Your task to perform on an android device: Open internet settings Image 0: 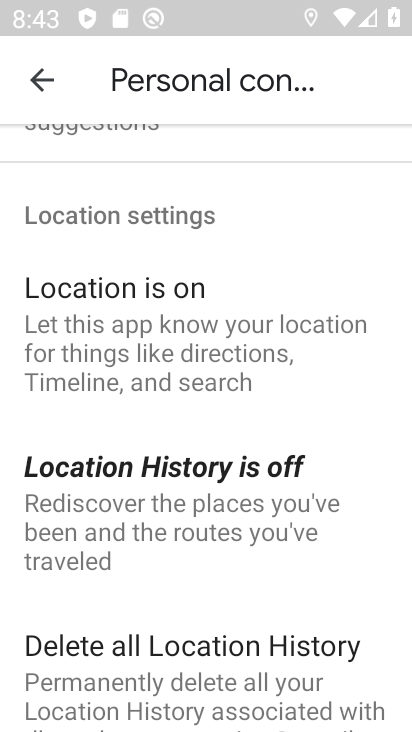
Step 0: press home button
Your task to perform on an android device: Open internet settings Image 1: 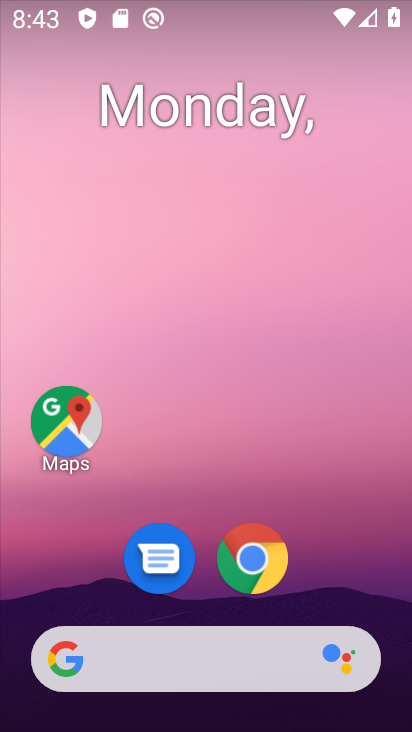
Step 1: drag from (315, 443) to (274, 14)
Your task to perform on an android device: Open internet settings Image 2: 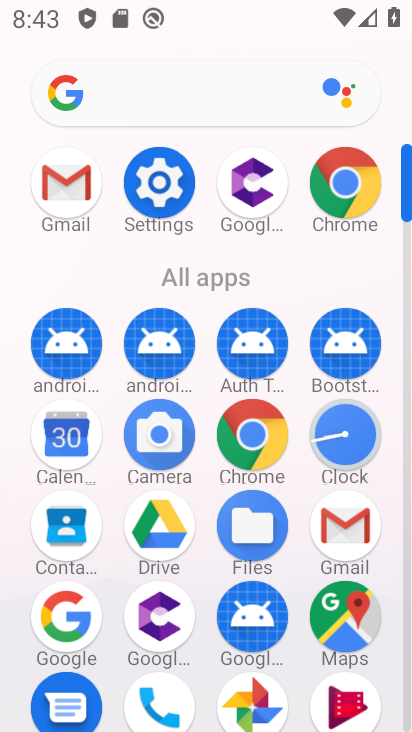
Step 2: click (170, 187)
Your task to perform on an android device: Open internet settings Image 3: 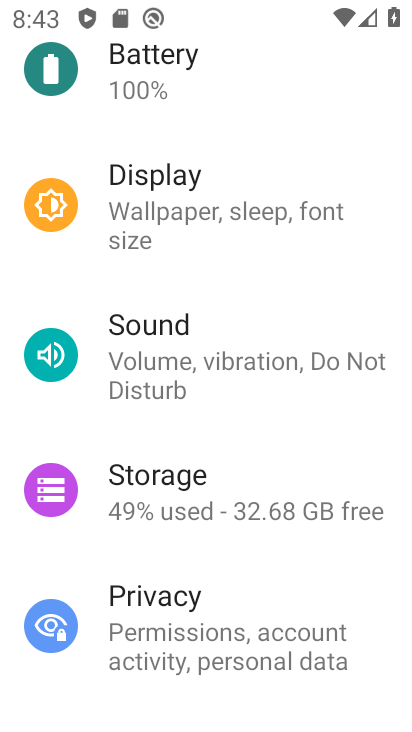
Step 3: drag from (252, 124) to (182, 620)
Your task to perform on an android device: Open internet settings Image 4: 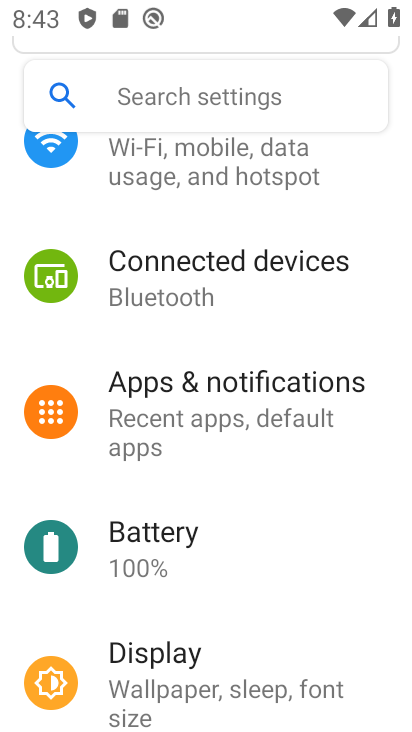
Step 4: drag from (217, 213) to (193, 474)
Your task to perform on an android device: Open internet settings Image 5: 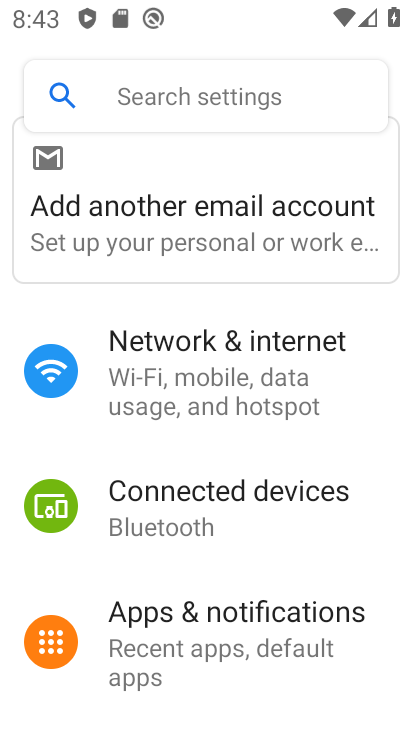
Step 5: click (199, 350)
Your task to perform on an android device: Open internet settings Image 6: 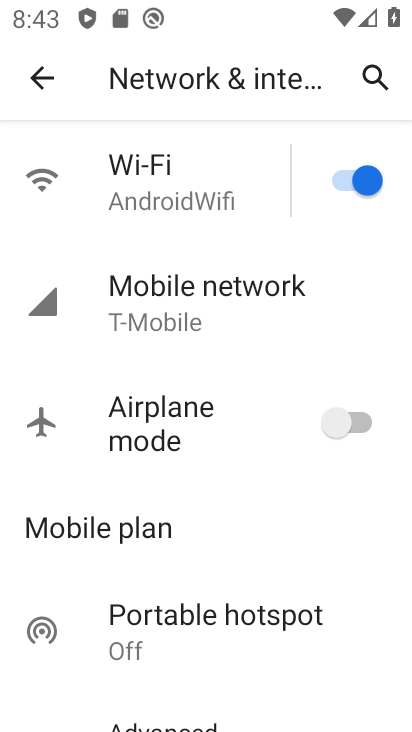
Step 6: task complete